Your task to perform on an android device: toggle notifications settings in the gmail app Image 0: 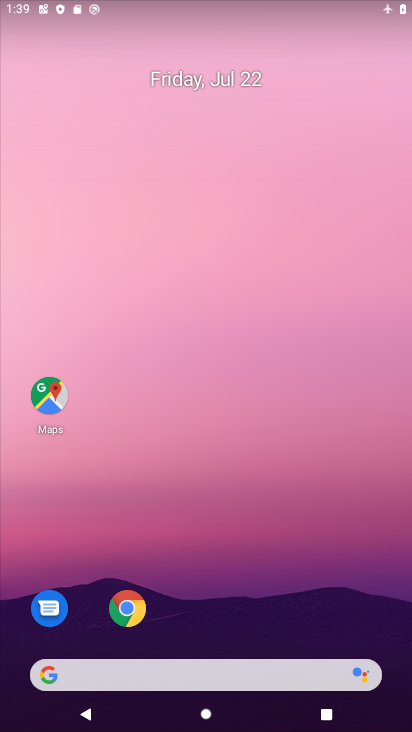
Step 0: drag from (239, 707) to (238, 198)
Your task to perform on an android device: toggle notifications settings in the gmail app Image 1: 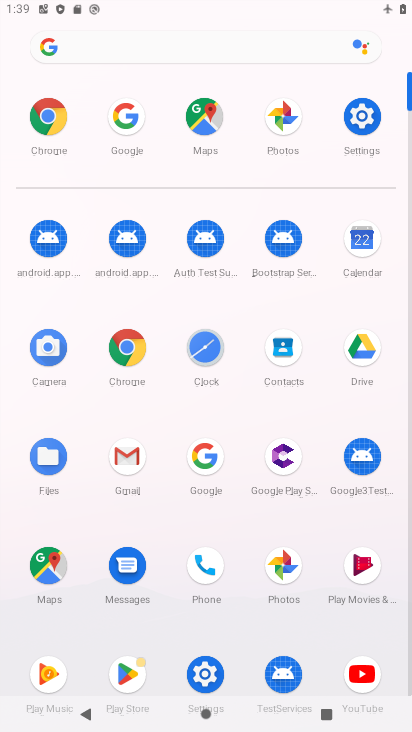
Step 1: click (127, 459)
Your task to perform on an android device: toggle notifications settings in the gmail app Image 2: 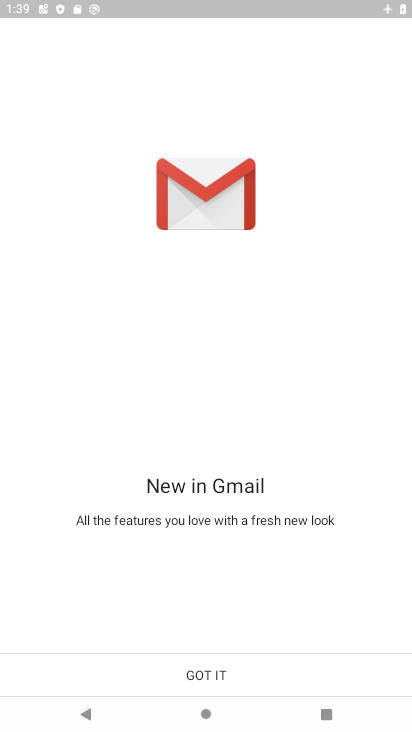
Step 2: click (199, 672)
Your task to perform on an android device: toggle notifications settings in the gmail app Image 3: 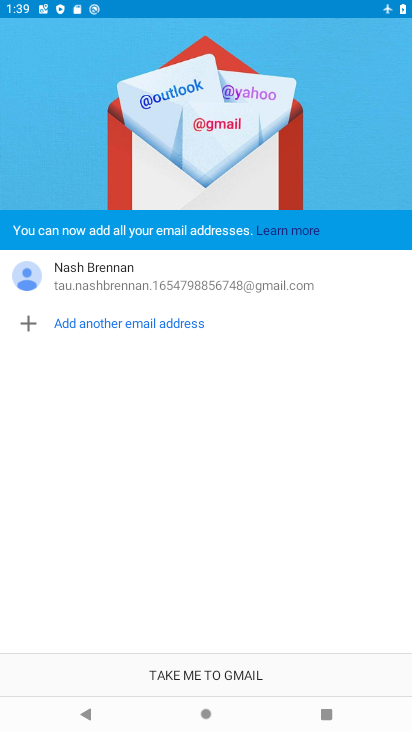
Step 3: click (224, 671)
Your task to perform on an android device: toggle notifications settings in the gmail app Image 4: 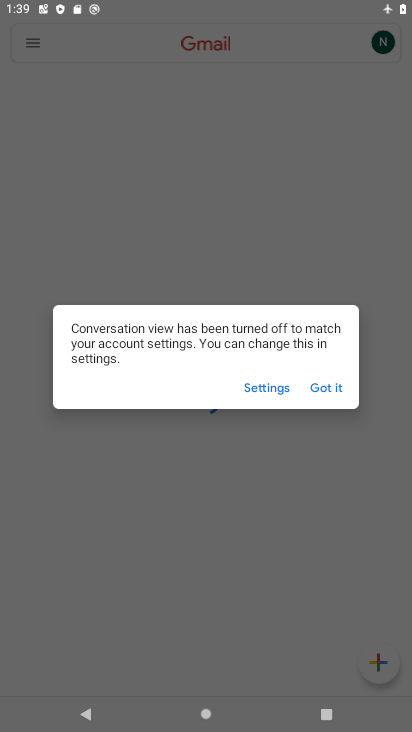
Step 4: click (334, 387)
Your task to perform on an android device: toggle notifications settings in the gmail app Image 5: 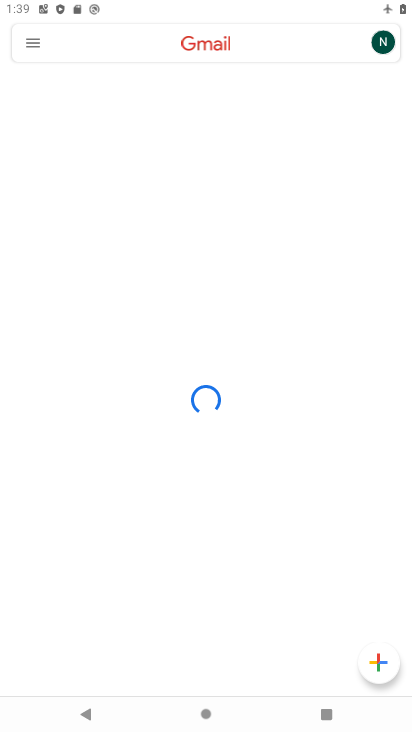
Step 5: click (29, 42)
Your task to perform on an android device: toggle notifications settings in the gmail app Image 6: 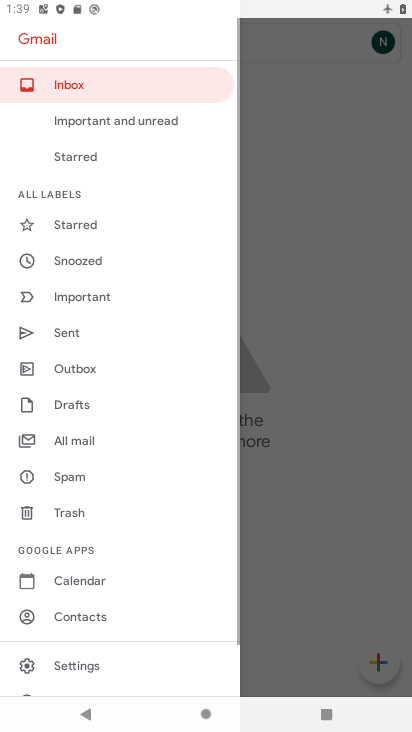
Step 6: click (65, 197)
Your task to perform on an android device: toggle notifications settings in the gmail app Image 7: 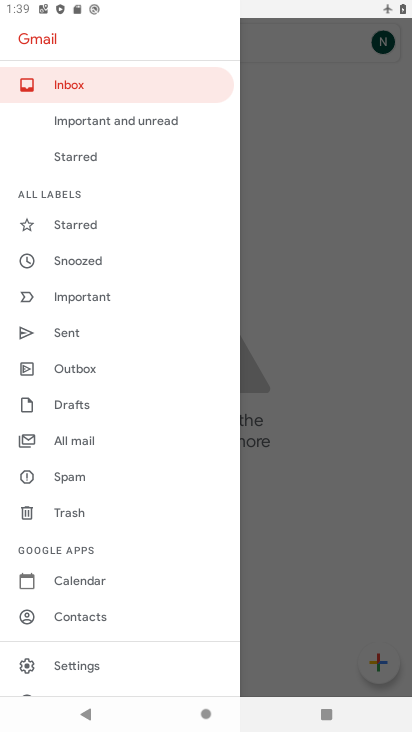
Step 7: click (77, 664)
Your task to perform on an android device: toggle notifications settings in the gmail app Image 8: 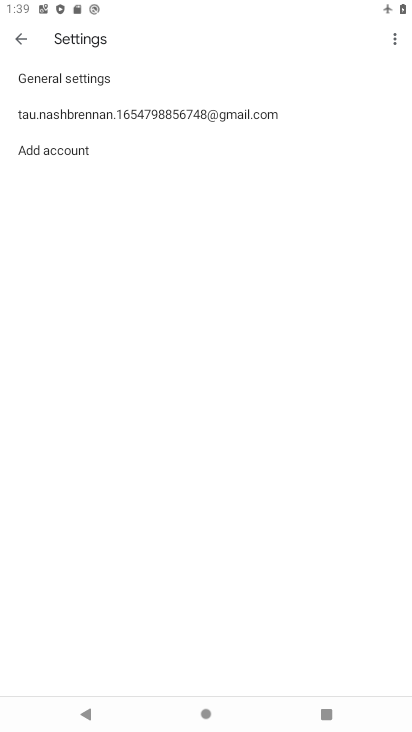
Step 8: click (145, 115)
Your task to perform on an android device: toggle notifications settings in the gmail app Image 9: 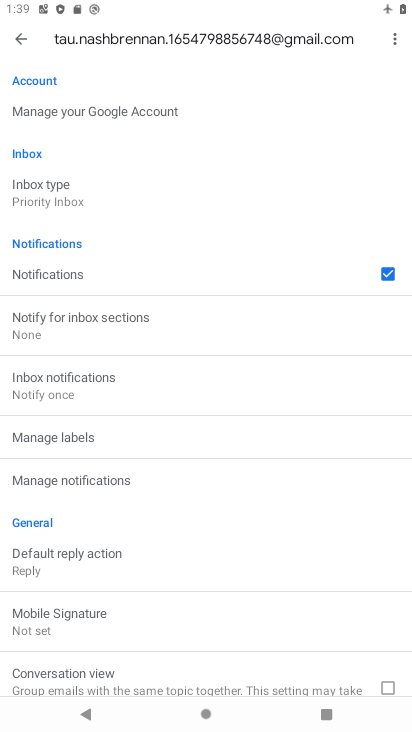
Step 9: click (383, 269)
Your task to perform on an android device: toggle notifications settings in the gmail app Image 10: 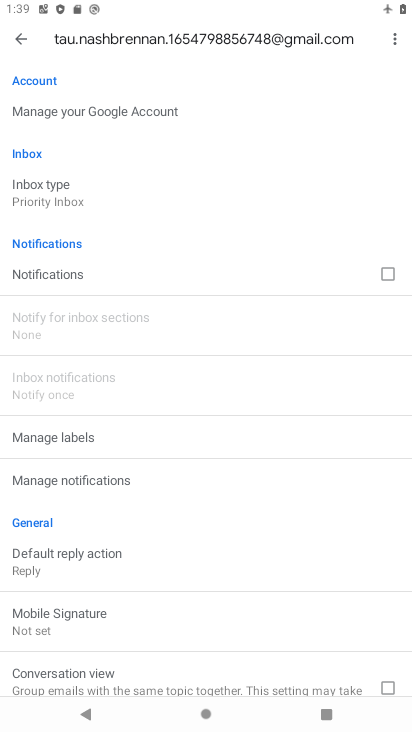
Step 10: task complete